Your task to perform on an android device: change the clock style Image 0: 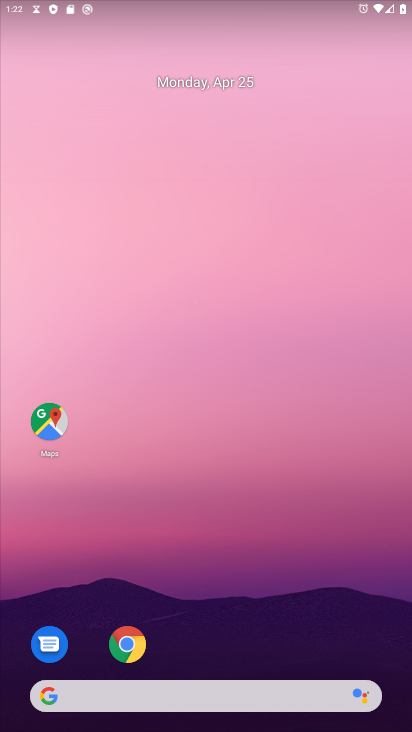
Step 0: drag from (352, 618) to (362, 48)
Your task to perform on an android device: change the clock style Image 1: 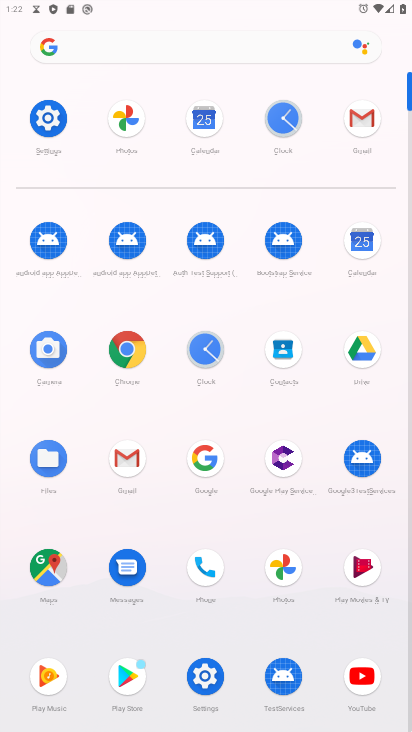
Step 1: click (281, 119)
Your task to perform on an android device: change the clock style Image 2: 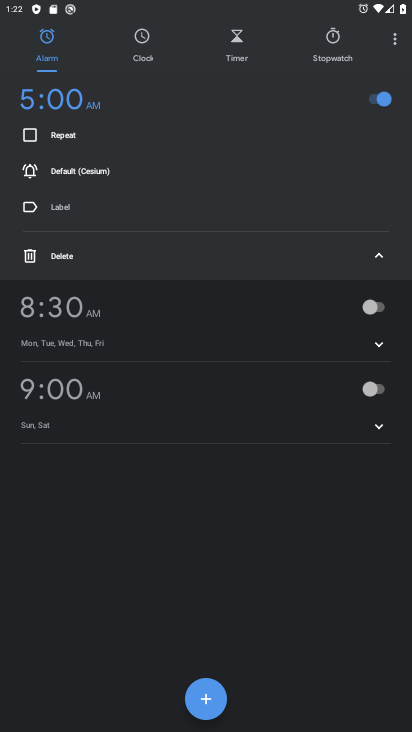
Step 2: click (393, 41)
Your task to perform on an android device: change the clock style Image 3: 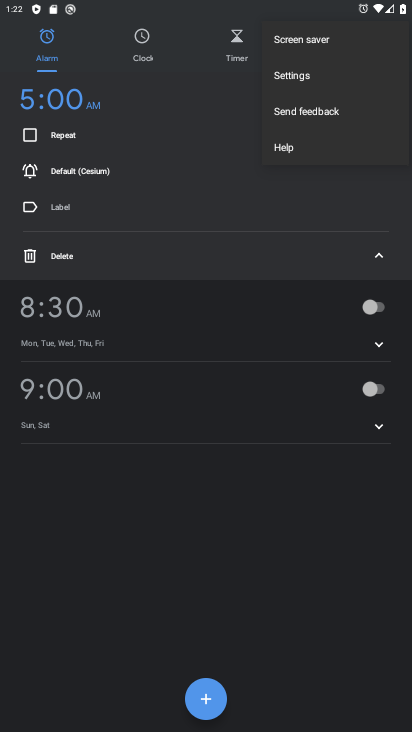
Step 3: click (296, 84)
Your task to perform on an android device: change the clock style Image 4: 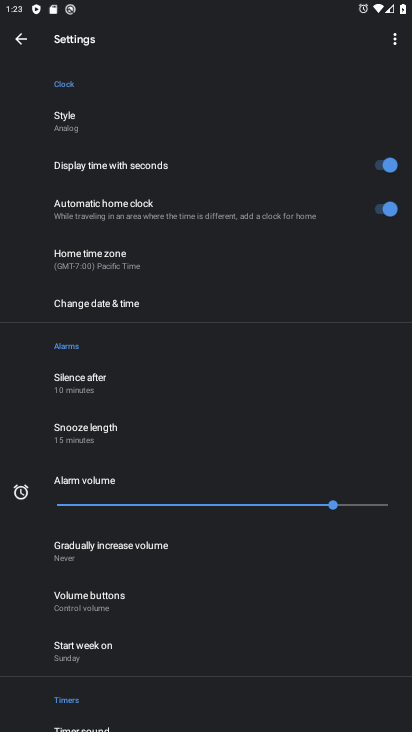
Step 4: click (69, 124)
Your task to perform on an android device: change the clock style Image 5: 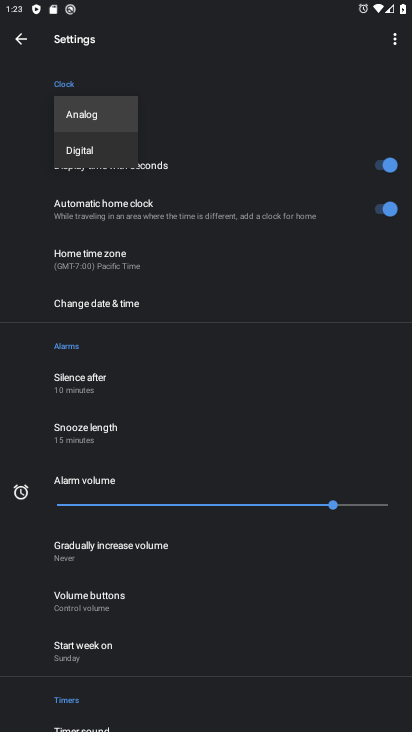
Step 5: click (72, 149)
Your task to perform on an android device: change the clock style Image 6: 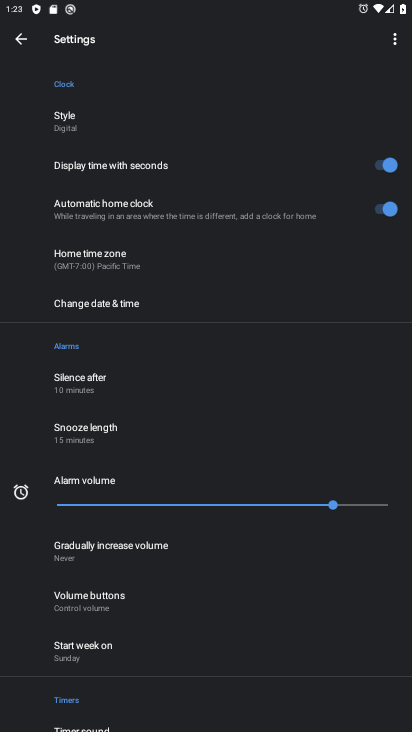
Step 6: task complete